Your task to perform on an android device: Clear the shopping cart on ebay.com. Search for "dell alienware" on ebay.com, select the first entry, and add it to the cart. Image 0: 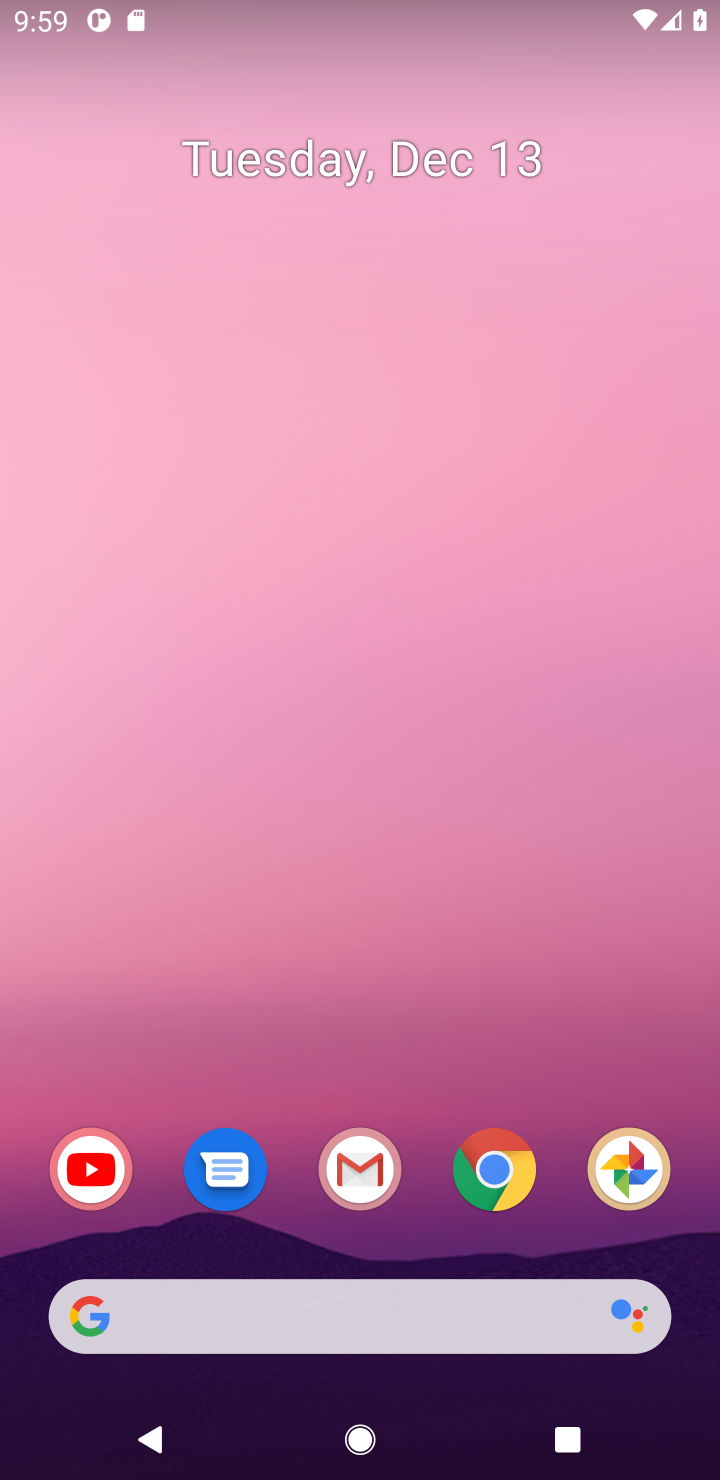
Step 0: task complete